Your task to perform on an android device: allow cookies in the chrome app Image 0: 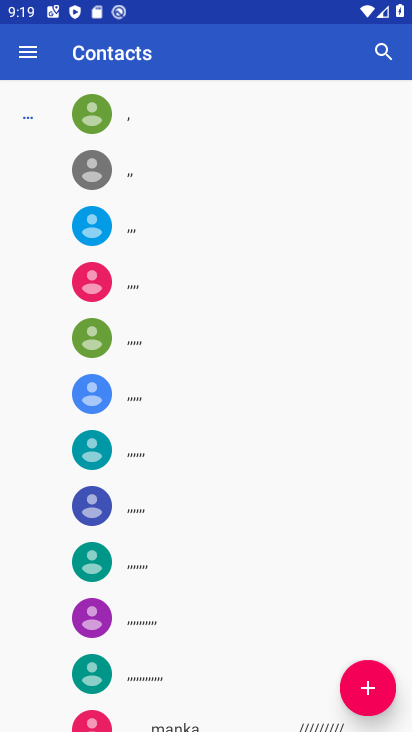
Step 0: press home button
Your task to perform on an android device: allow cookies in the chrome app Image 1: 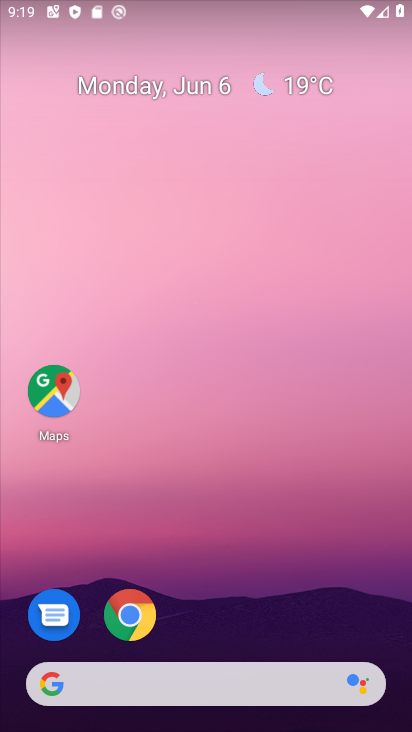
Step 1: click (132, 610)
Your task to perform on an android device: allow cookies in the chrome app Image 2: 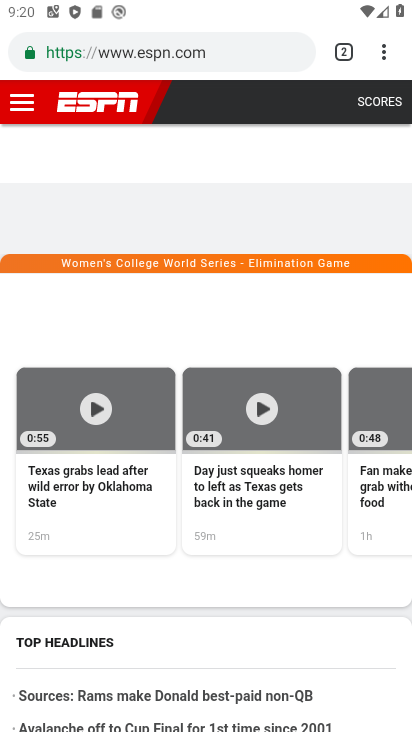
Step 2: click (385, 60)
Your task to perform on an android device: allow cookies in the chrome app Image 3: 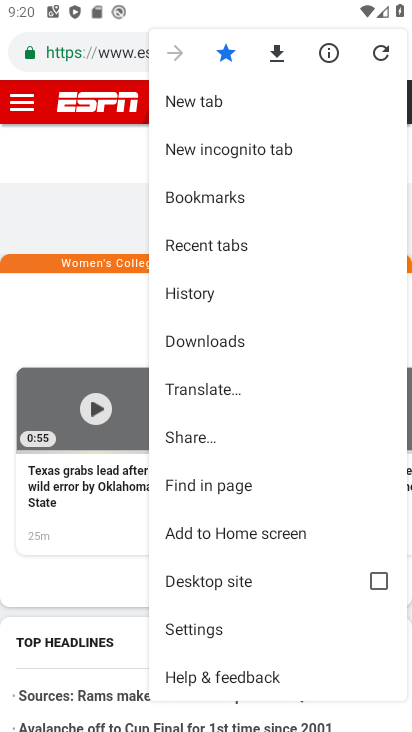
Step 3: click (219, 633)
Your task to perform on an android device: allow cookies in the chrome app Image 4: 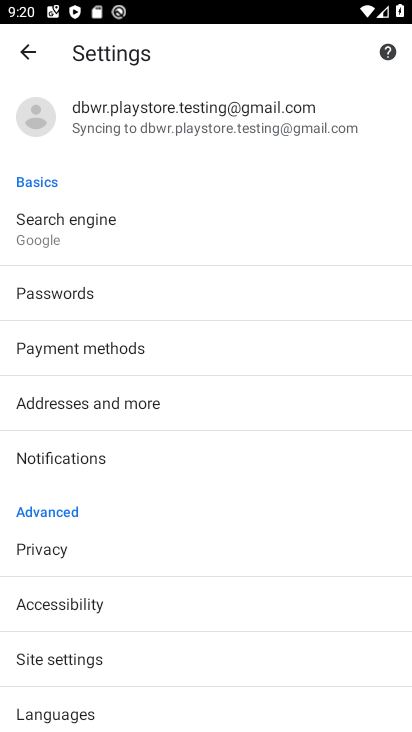
Step 4: drag from (161, 660) to (168, 75)
Your task to perform on an android device: allow cookies in the chrome app Image 5: 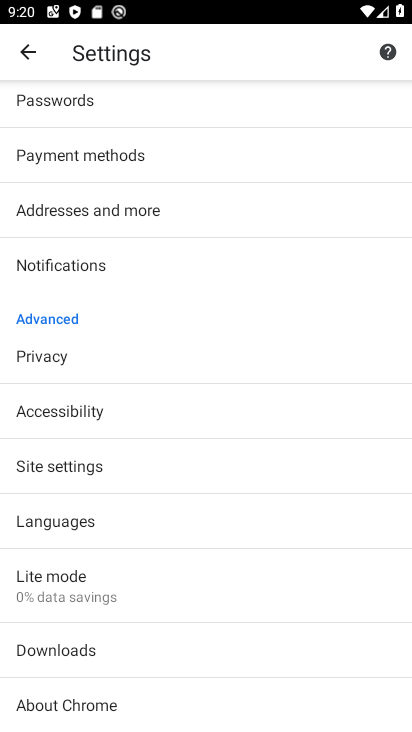
Step 5: click (62, 474)
Your task to perform on an android device: allow cookies in the chrome app Image 6: 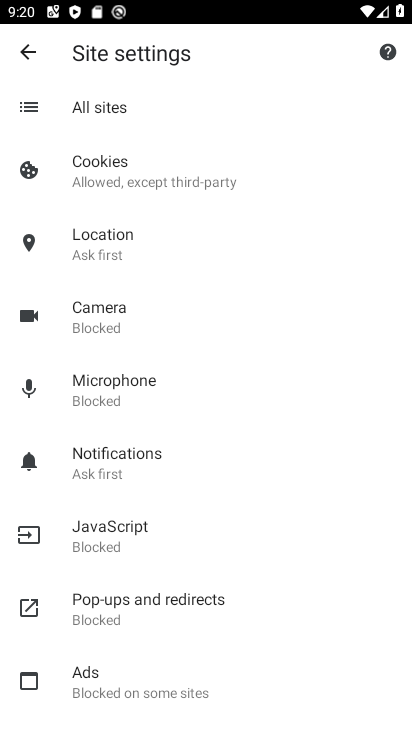
Step 6: click (91, 154)
Your task to perform on an android device: allow cookies in the chrome app Image 7: 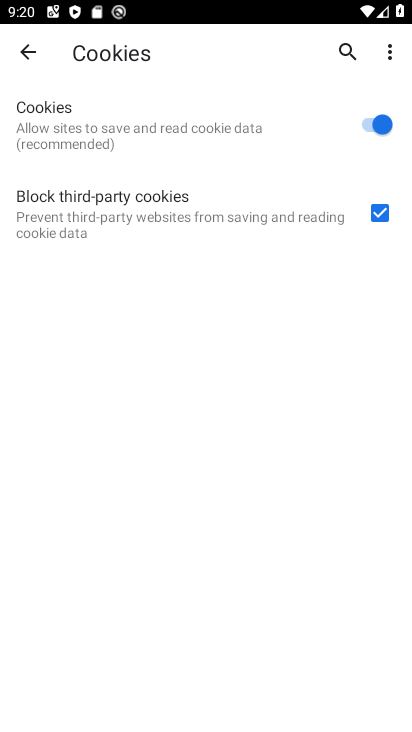
Step 7: task complete